Your task to perform on an android device: turn on translation in the chrome app Image 0: 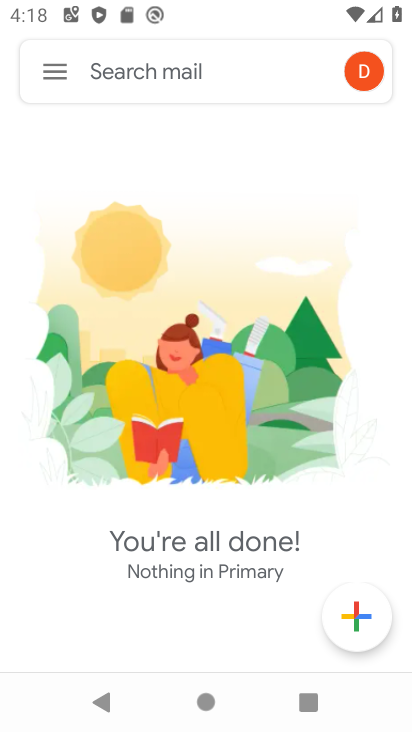
Step 0: press home button
Your task to perform on an android device: turn on translation in the chrome app Image 1: 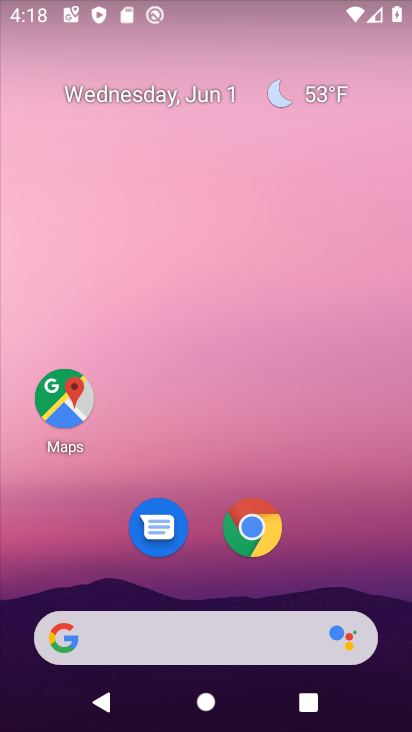
Step 1: drag from (297, 579) to (311, 46)
Your task to perform on an android device: turn on translation in the chrome app Image 2: 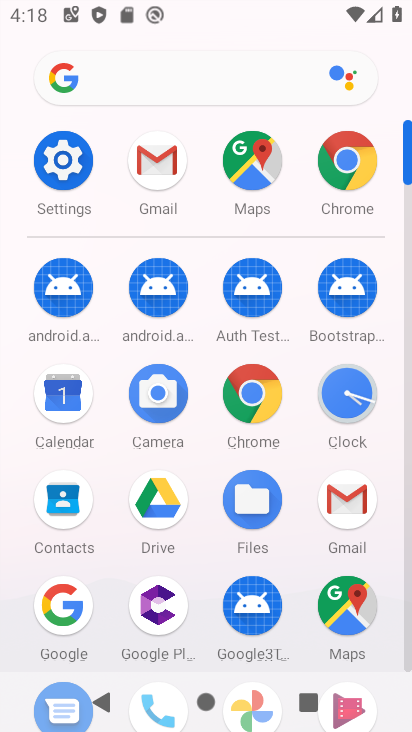
Step 2: click (256, 390)
Your task to perform on an android device: turn on translation in the chrome app Image 3: 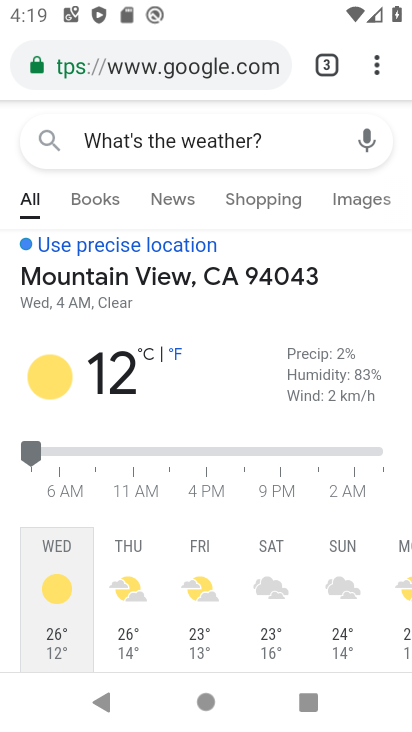
Step 3: drag from (376, 69) to (187, 574)
Your task to perform on an android device: turn on translation in the chrome app Image 4: 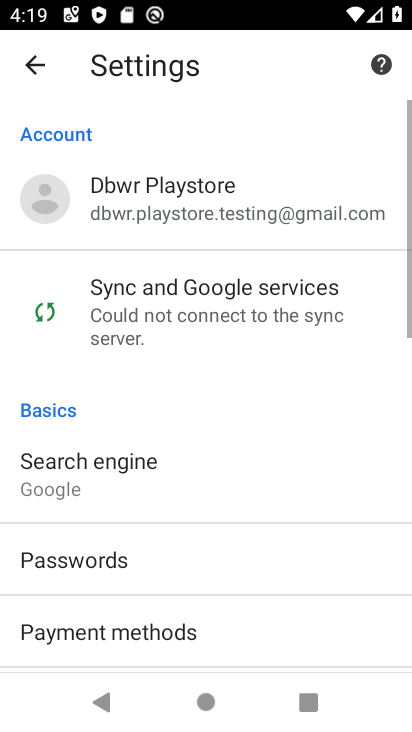
Step 4: drag from (248, 618) to (280, 122)
Your task to perform on an android device: turn on translation in the chrome app Image 5: 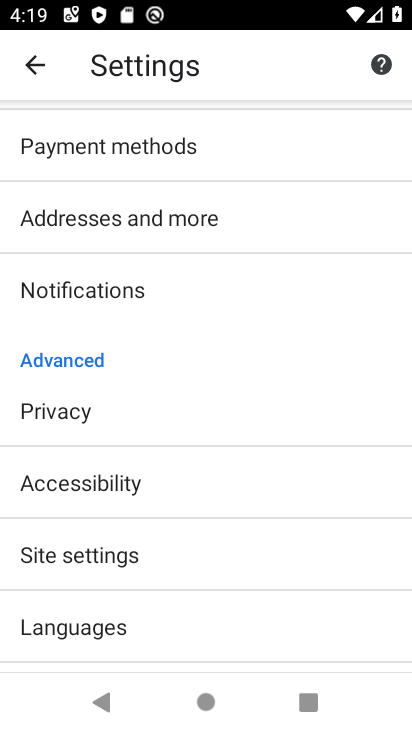
Step 5: click (55, 622)
Your task to perform on an android device: turn on translation in the chrome app Image 6: 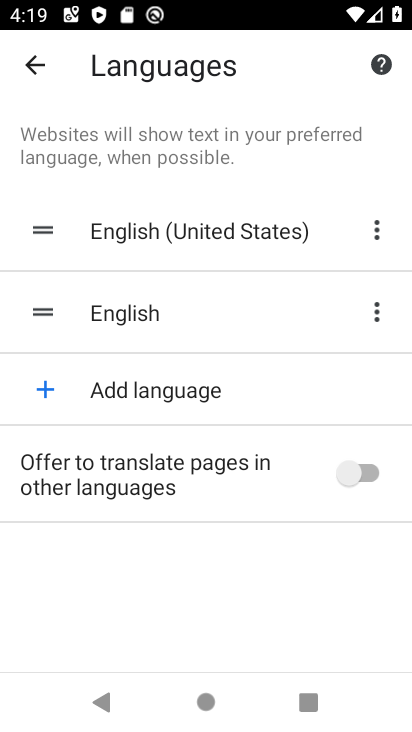
Step 6: click (364, 473)
Your task to perform on an android device: turn on translation in the chrome app Image 7: 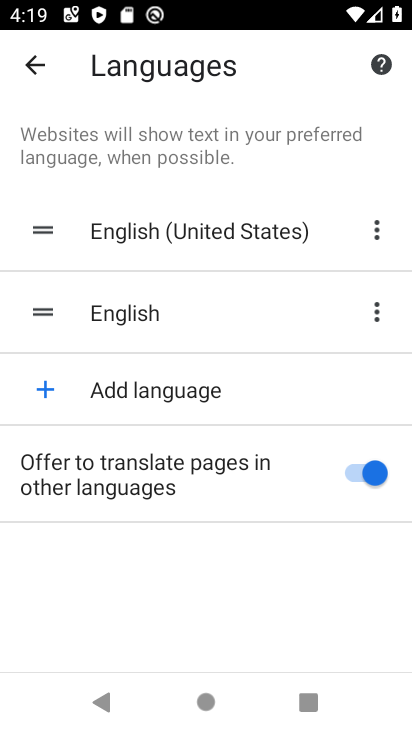
Step 7: task complete